Your task to perform on an android device: turn off priority inbox in the gmail app Image 0: 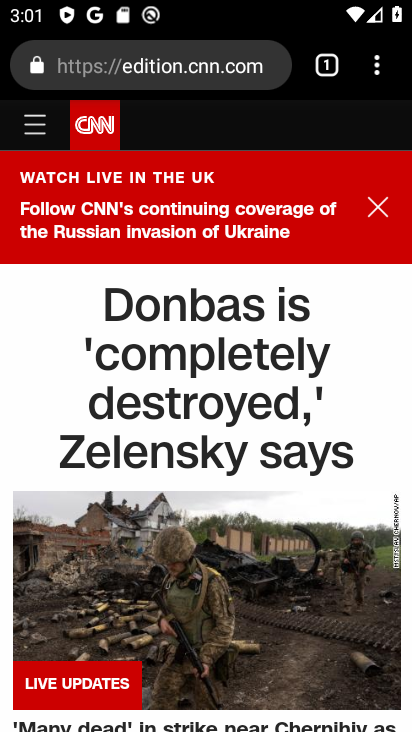
Step 0: press home button
Your task to perform on an android device: turn off priority inbox in the gmail app Image 1: 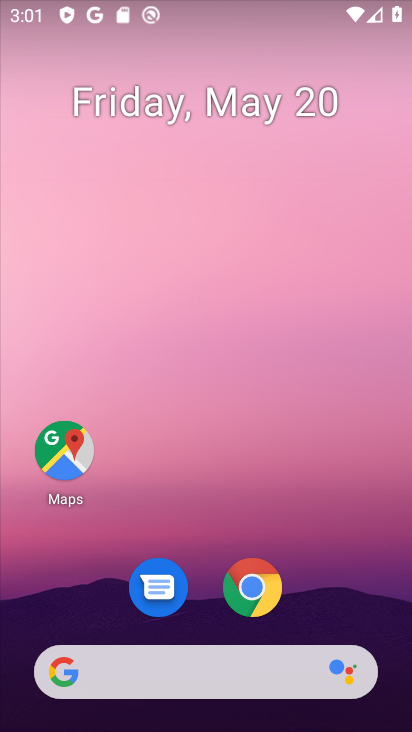
Step 1: drag from (160, 677) to (300, 198)
Your task to perform on an android device: turn off priority inbox in the gmail app Image 2: 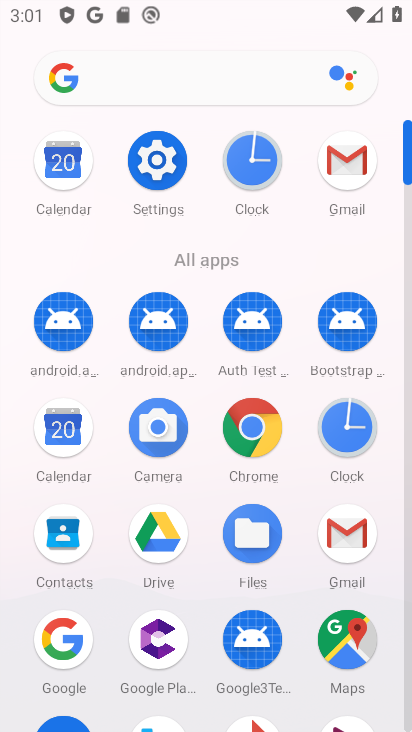
Step 2: click (348, 181)
Your task to perform on an android device: turn off priority inbox in the gmail app Image 3: 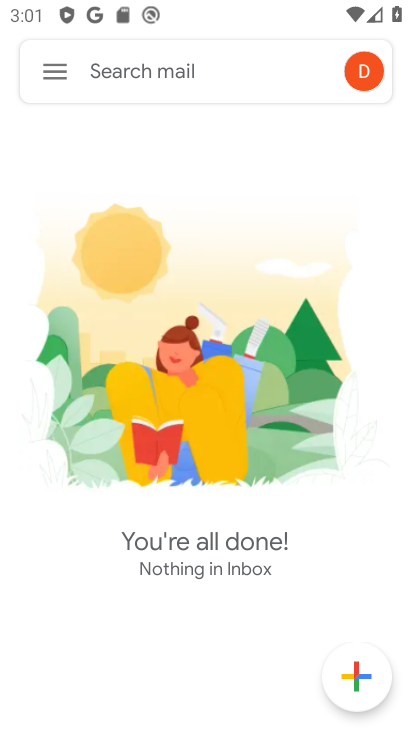
Step 3: click (55, 73)
Your task to perform on an android device: turn off priority inbox in the gmail app Image 4: 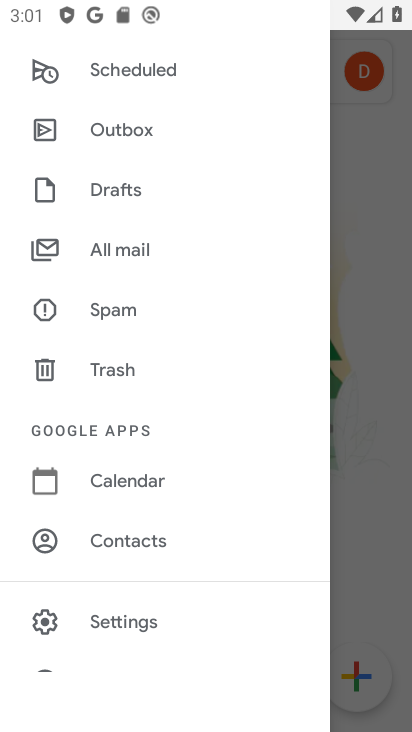
Step 4: click (125, 627)
Your task to perform on an android device: turn off priority inbox in the gmail app Image 5: 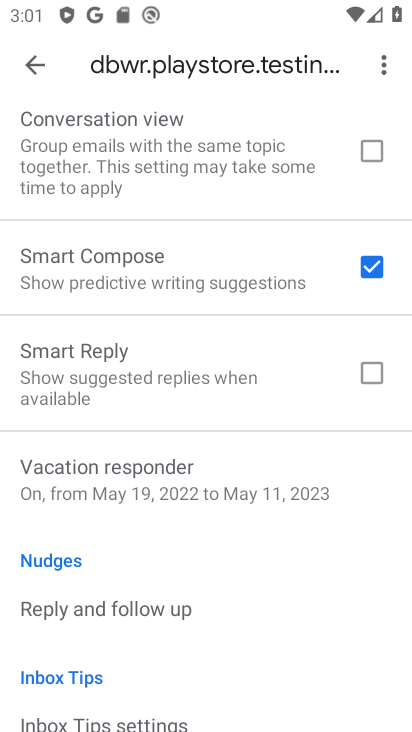
Step 5: drag from (252, 174) to (245, 605)
Your task to perform on an android device: turn off priority inbox in the gmail app Image 6: 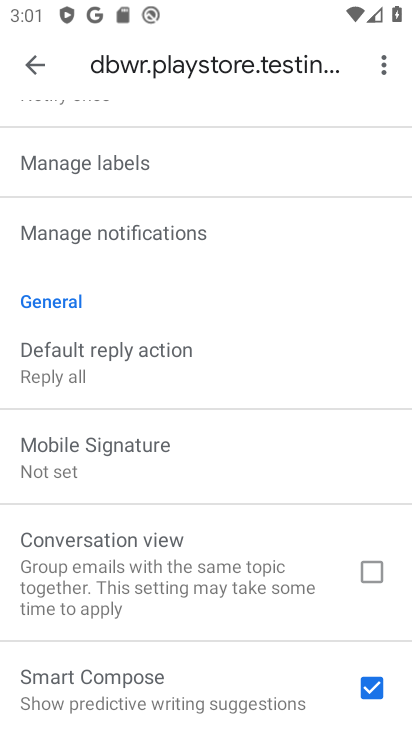
Step 6: drag from (262, 220) to (270, 598)
Your task to perform on an android device: turn off priority inbox in the gmail app Image 7: 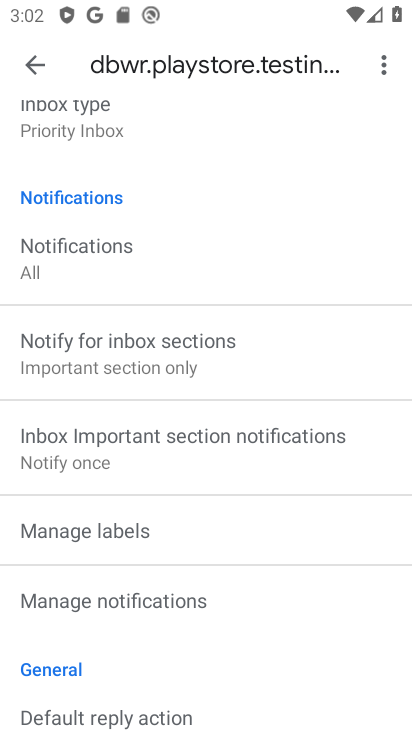
Step 7: drag from (205, 169) to (212, 454)
Your task to perform on an android device: turn off priority inbox in the gmail app Image 8: 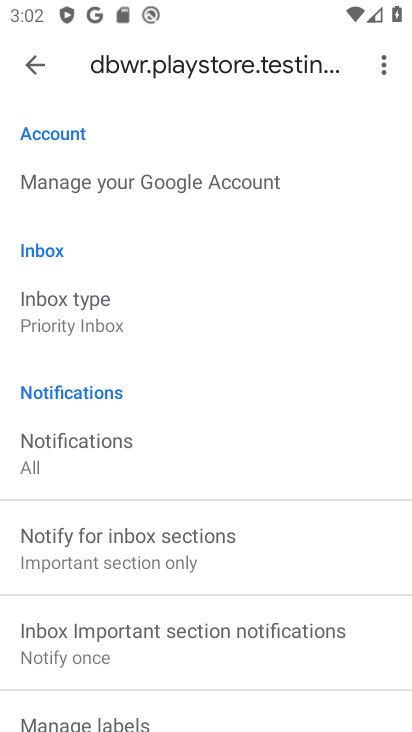
Step 8: click (86, 307)
Your task to perform on an android device: turn off priority inbox in the gmail app Image 9: 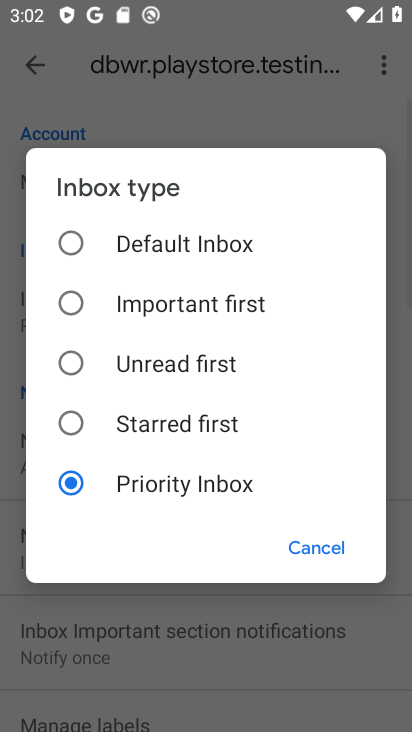
Step 9: click (65, 239)
Your task to perform on an android device: turn off priority inbox in the gmail app Image 10: 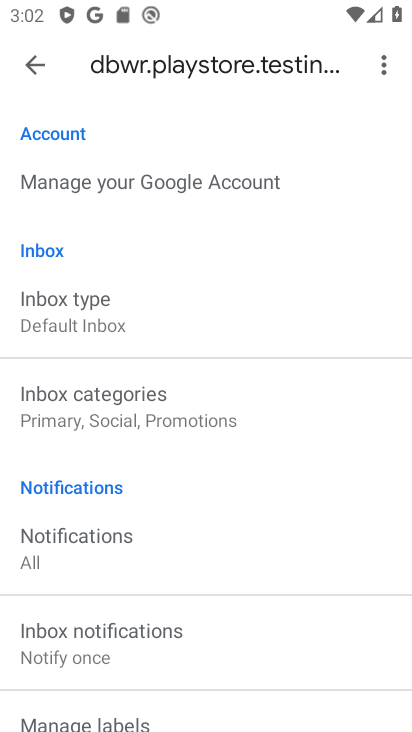
Step 10: task complete